Your task to perform on an android device: Open calendar and show me the first week of next month Image 0: 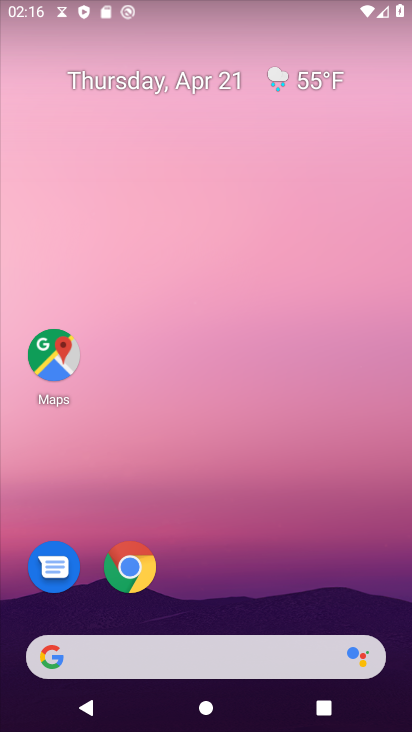
Step 0: drag from (206, 653) to (320, 205)
Your task to perform on an android device: Open calendar and show me the first week of next month Image 1: 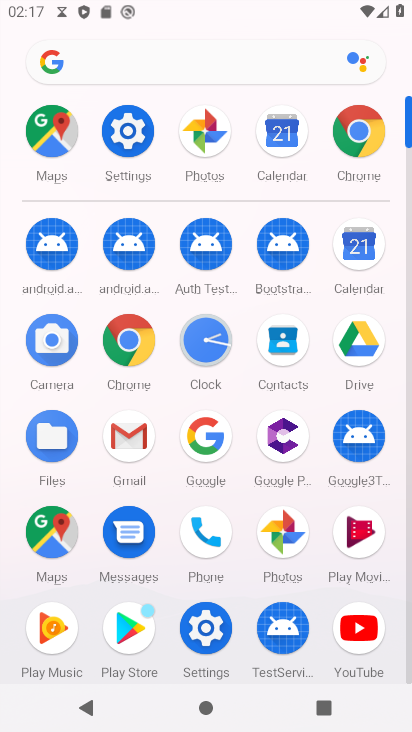
Step 1: click (361, 262)
Your task to perform on an android device: Open calendar and show me the first week of next month Image 2: 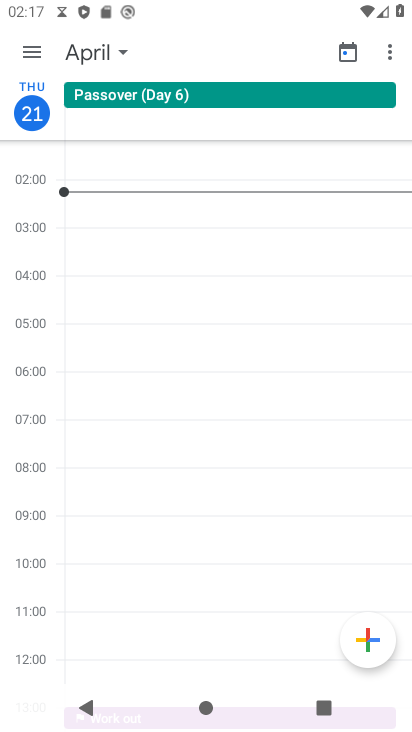
Step 2: click (74, 45)
Your task to perform on an android device: Open calendar and show me the first week of next month Image 3: 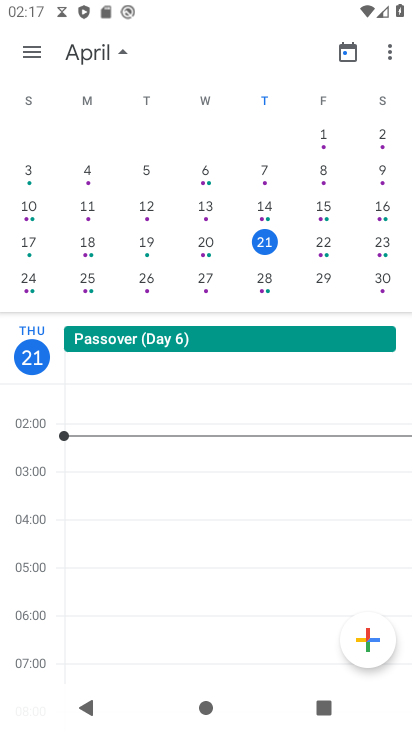
Step 3: drag from (368, 233) to (59, 218)
Your task to perform on an android device: Open calendar and show me the first week of next month Image 4: 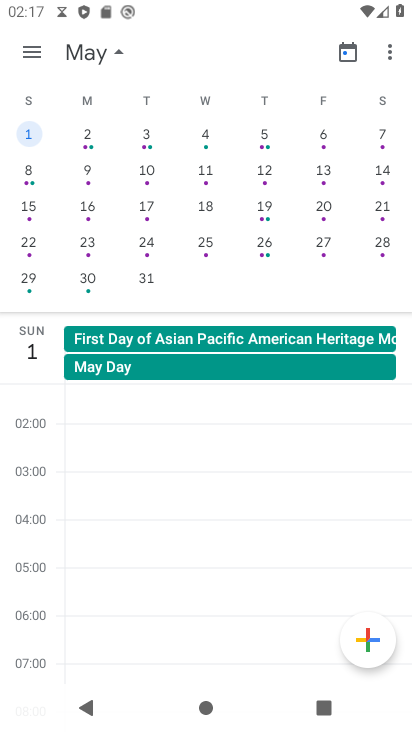
Step 4: click (29, 131)
Your task to perform on an android device: Open calendar and show me the first week of next month Image 5: 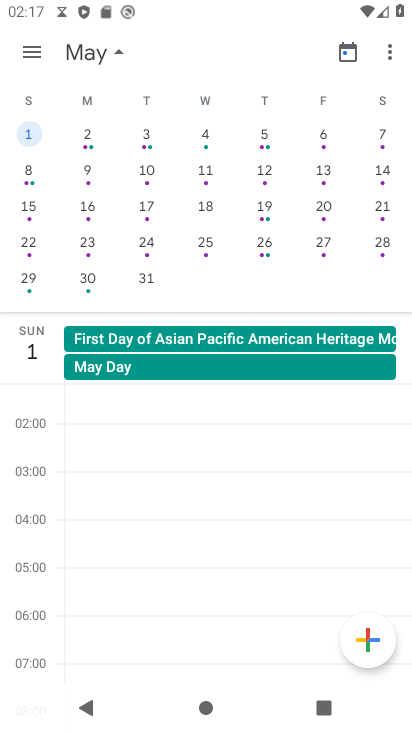
Step 5: click (32, 52)
Your task to perform on an android device: Open calendar and show me the first week of next month Image 6: 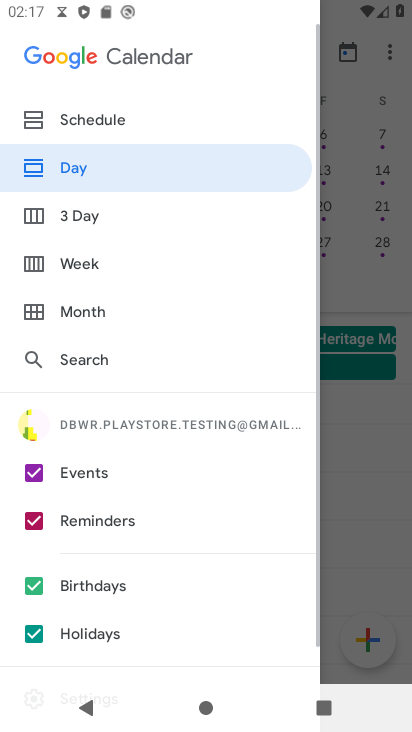
Step 6: click (90, 264)
Your task to perform on an android device: Open calendar and show me the first week of next month Image 7: 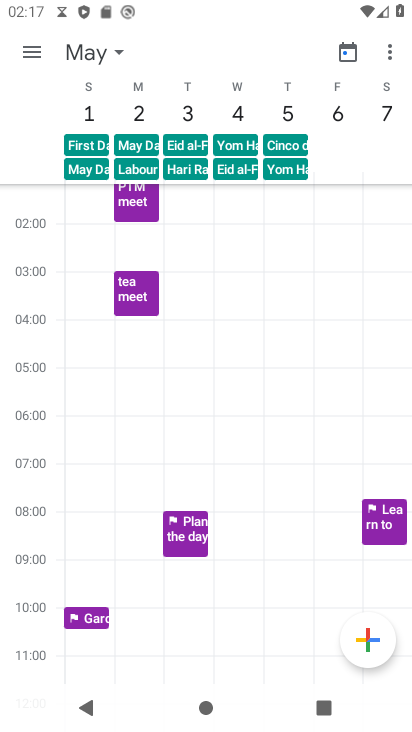
Step 7: task complete